Your task to perform on an android device: Search for "bose quietcomfort 35" on costco.com, select the first entry, and add it to the cart. Image 0: 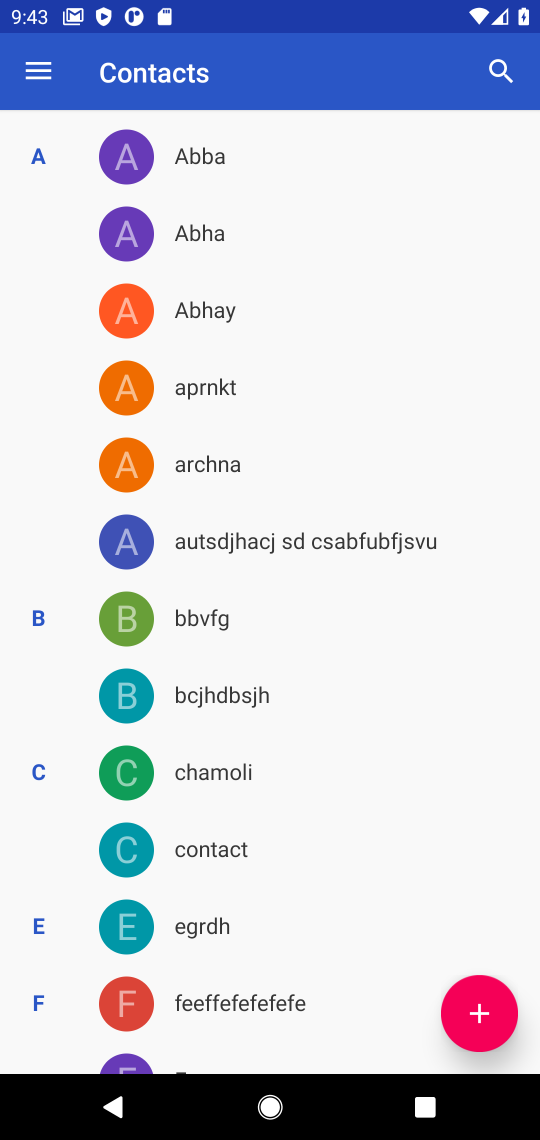
Step 0: press home button
Your task to perform on an android device: Search for "bose quietcomfort 35" on costco.com, select the first entry, and add it to the cart. Image 1: 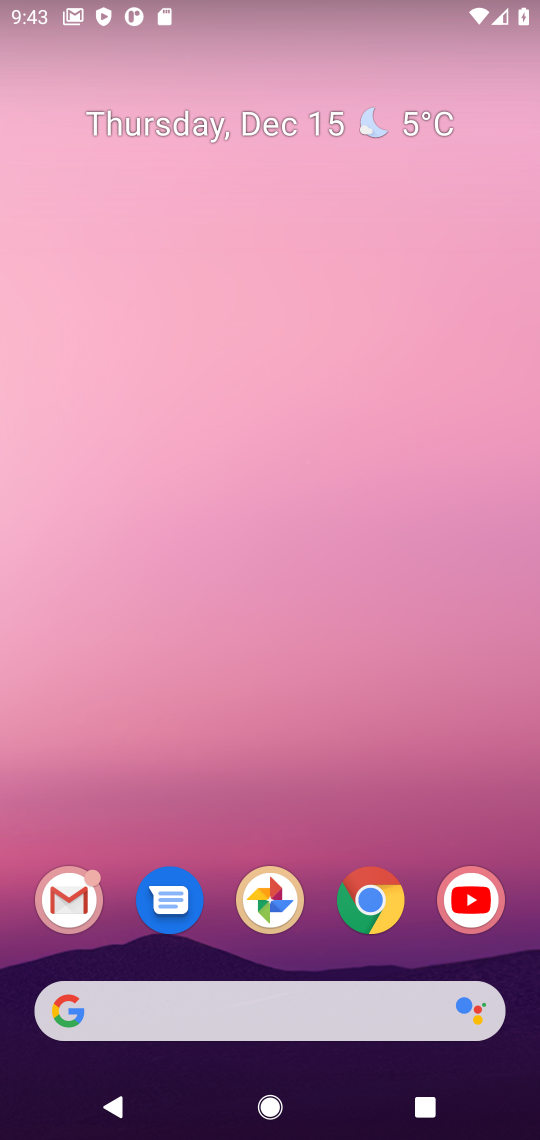
Step 1: click (368, 903)
Your task to perform on an android device: Search for "bose quietcomfort 35" on costco.com, select the first entry, and add it to the cart. Image 2: 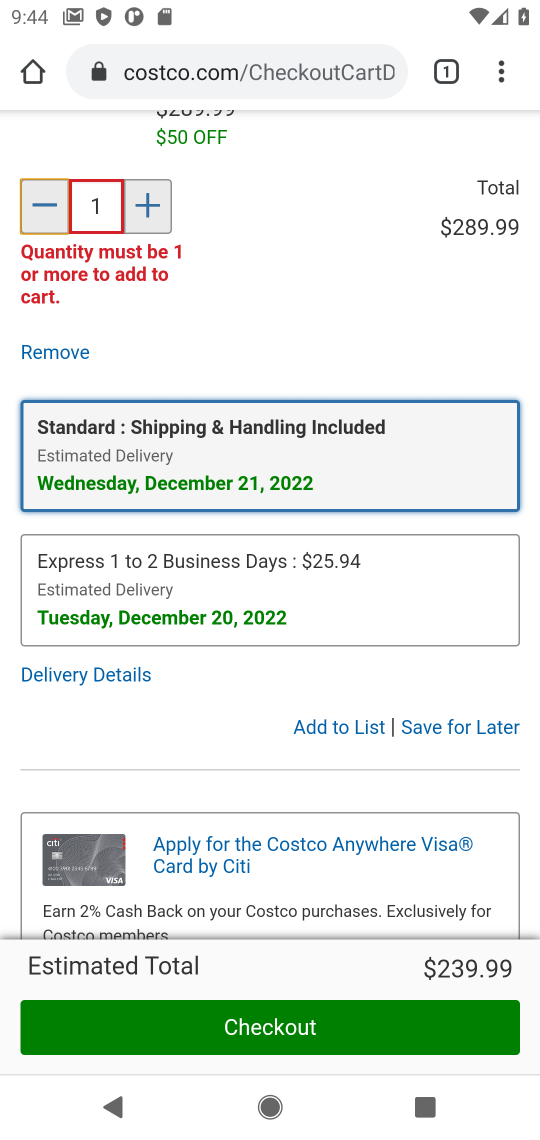
Step 2: click (278, 72)
Your task to perform on an android device: Search for "bose quietcomfort 35" on costco.com, select the first entry, and add it to the cart. Image 3: 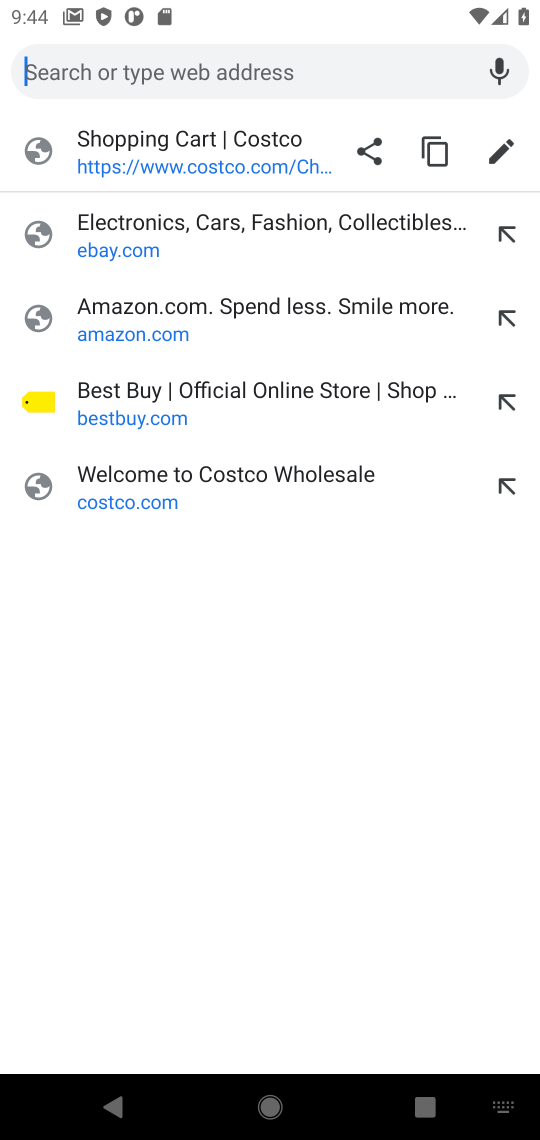
Step 3: type "costco.com"
Your task to perform on an android device: Search for "bose quietcomfort 35" on costco.com, select the first entry, and add it to the cart. Image 4: 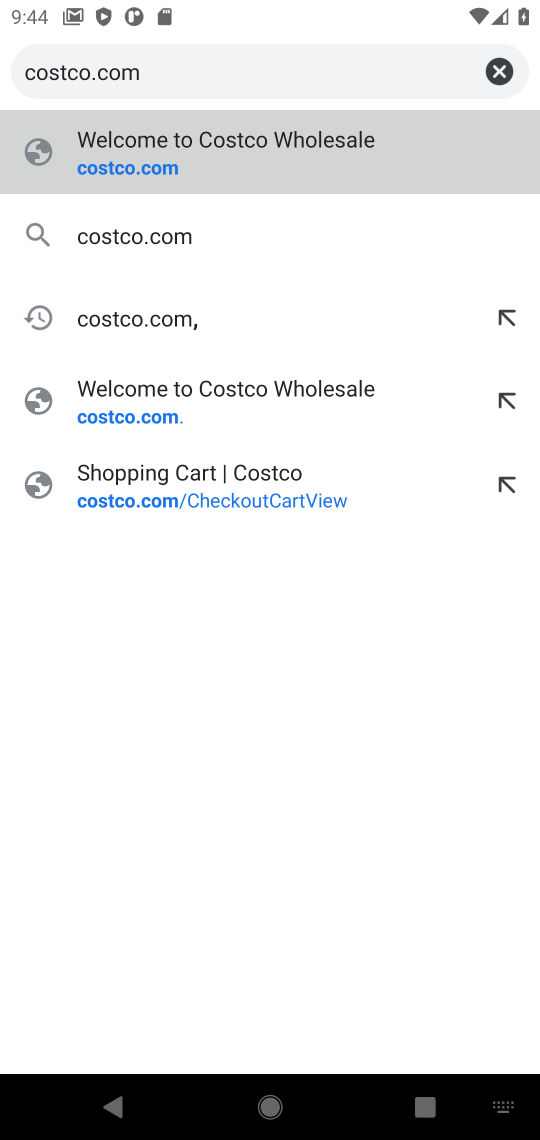
Step 4: click (123, 164)
Your task to perform on an android device: Search for "bose quietcomfort 35" on costco.com, select the first entry, and add it to the cart. Image 5: 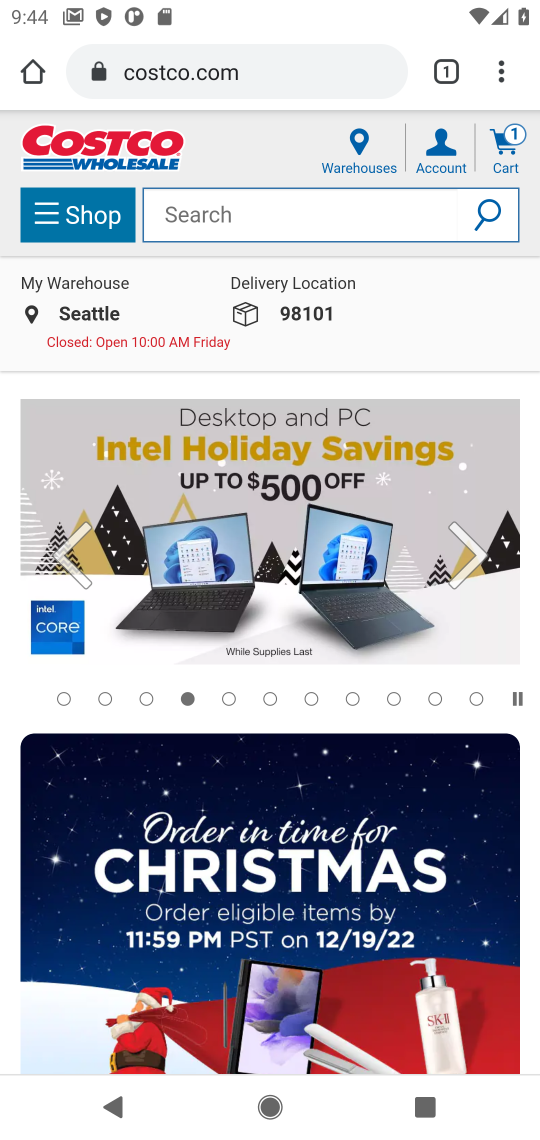
Step 5: click (193, 235)
Your task to perform on an android device: Search for "bose quietcomfort 35" on costco.com, select the first entry, and add it to the cart. Image 6: 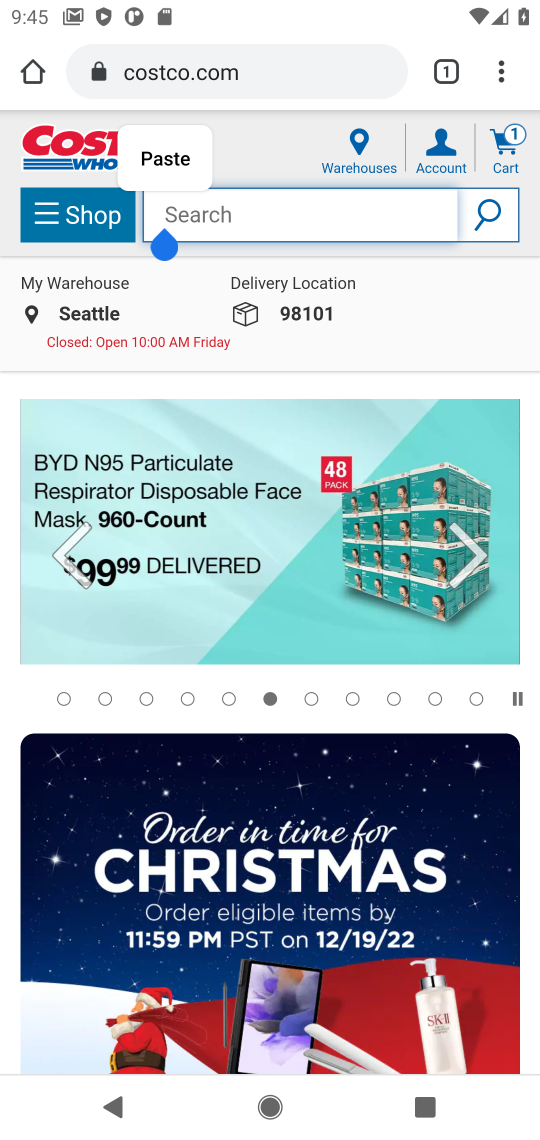
Step 6: type "bose quietcomfort 35"
Your task to perform on an android device: Search for "bose quietcomfort 35" on costco.com, select the first entry, and add it to the cart. Image 7: 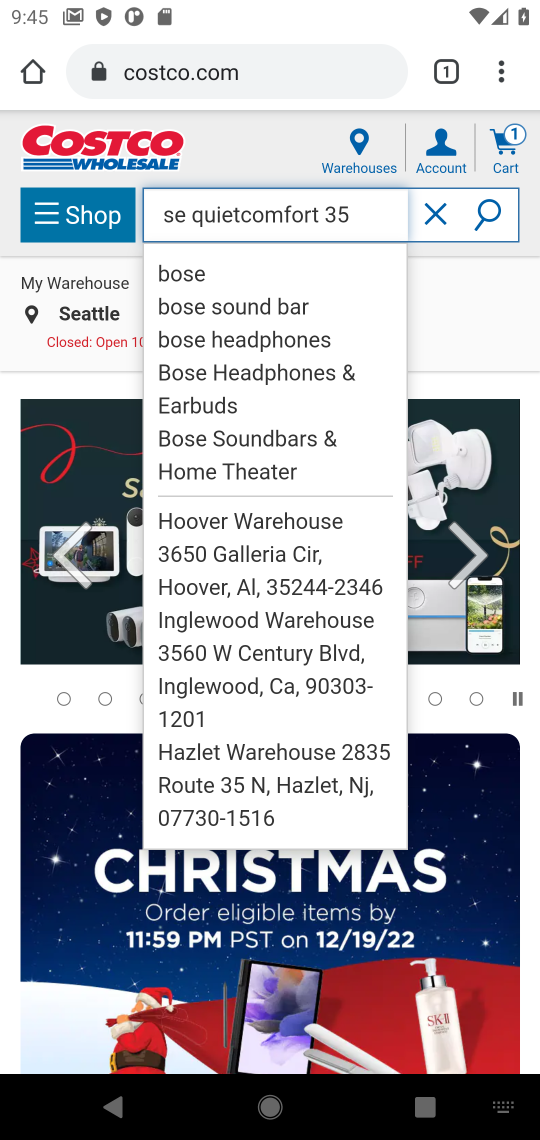
Step 7: press enter
Your task to perform on an android device: Search for "bose quietcomfort 35" on costco.com, select the first entry, and add it to the cart. Image 8: 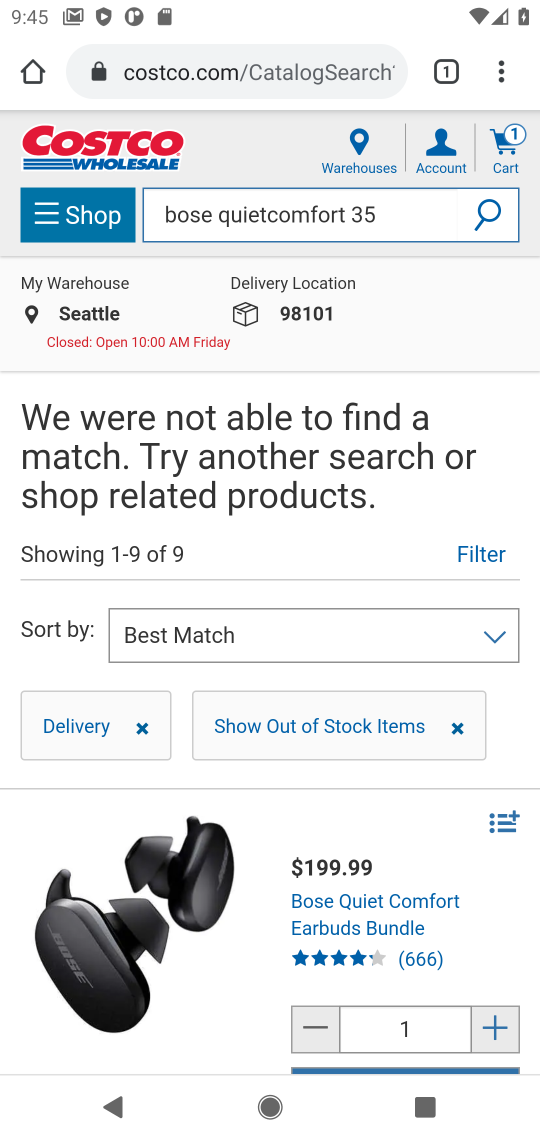
Step 8: task complete